Your task to perform on an android device: What's the weather? Image 0: 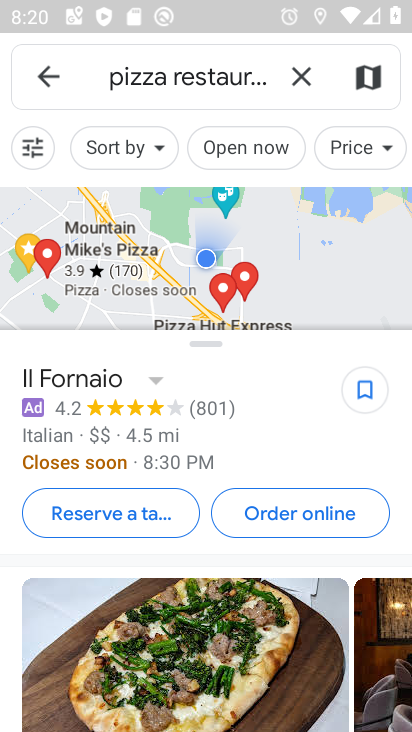
Step 0: press home button
Your task to perform on an android device: What's the weather? Image 1: 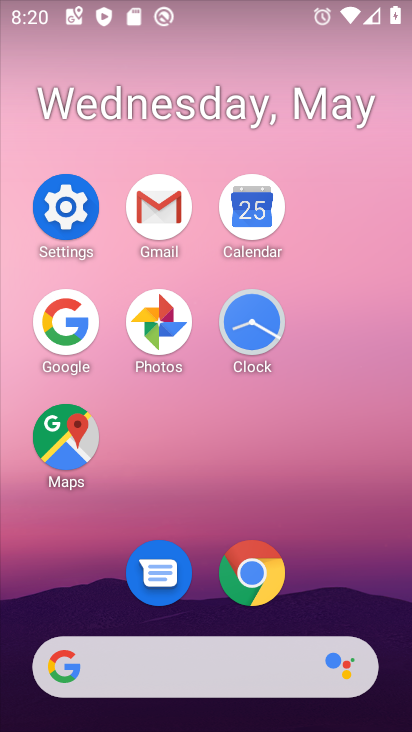
Step 1: click (85, 317)
Your task to perform on an android device: What's the weather? Image 2: 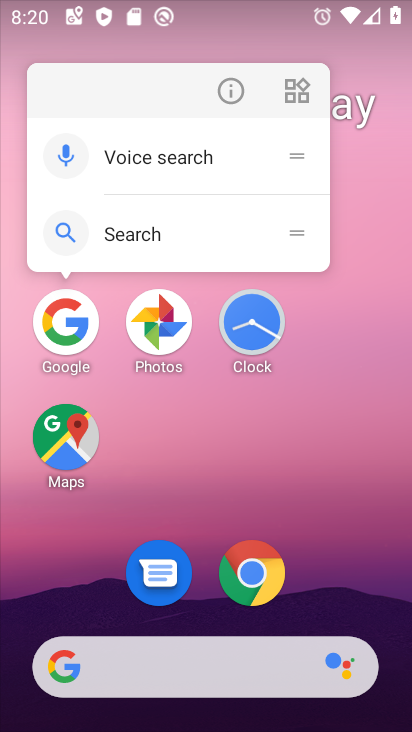
Step 2: click (85, 316)
Your task to perform on an android device: What's the weather? Image 3: 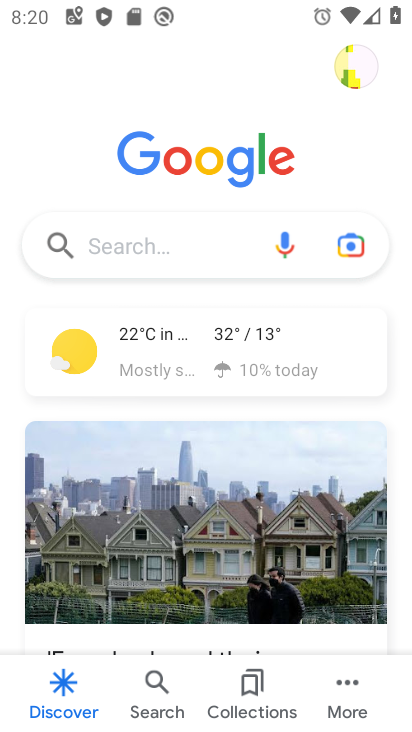
Step 3: click (167, 330)
Your task to perform on an android device: What's the weather? Image 4: 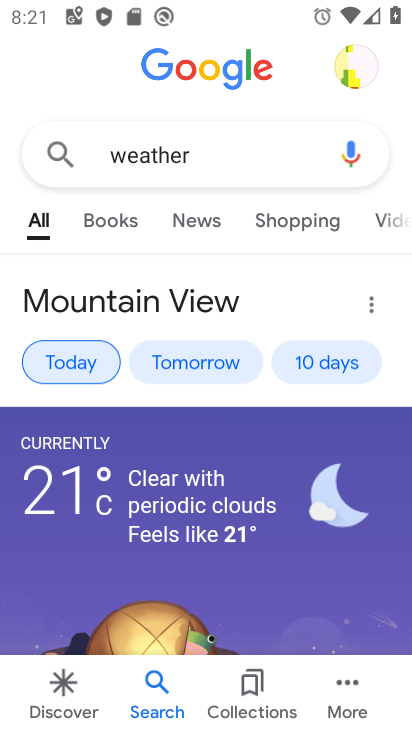
Step 4: task complete